Your task to perform on an android device: change the clock display to digital Image 0: 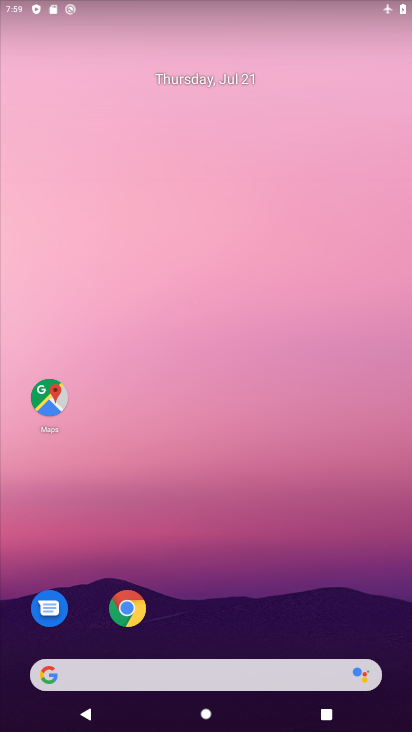
Step 0: press home button
Your task to perform on an android device: change the clock display to digital Image 1: 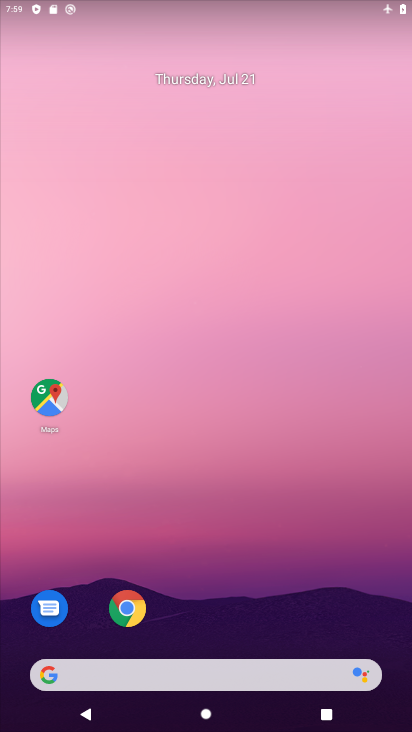
Step 1: drag from (231, 640) to (243, 24)
Your task to perform on an android device: change the clock display to digital Image 2: 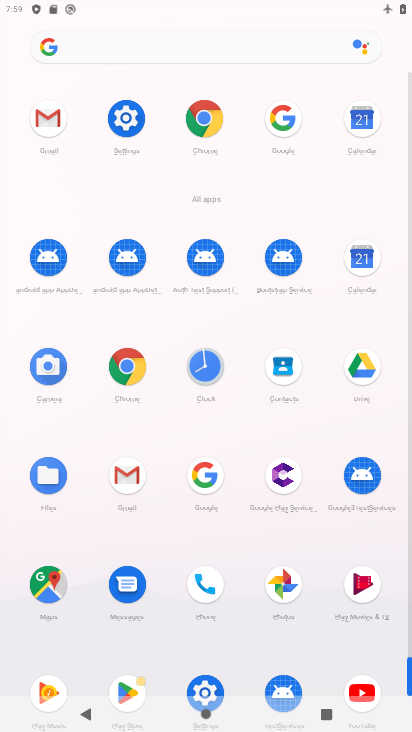
Step 2: click (204, 366)
Your task to perform on an android device: change the clock display to digital Image 3: 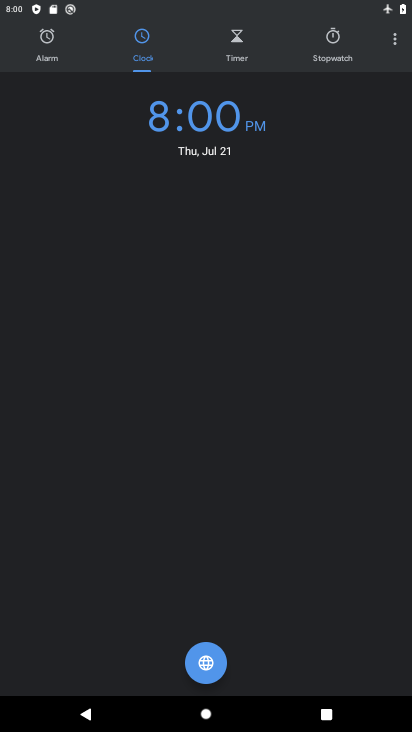
Step 3: click (394, 38)
Your task to perform on an android device: change the clock display to digital Image 4: 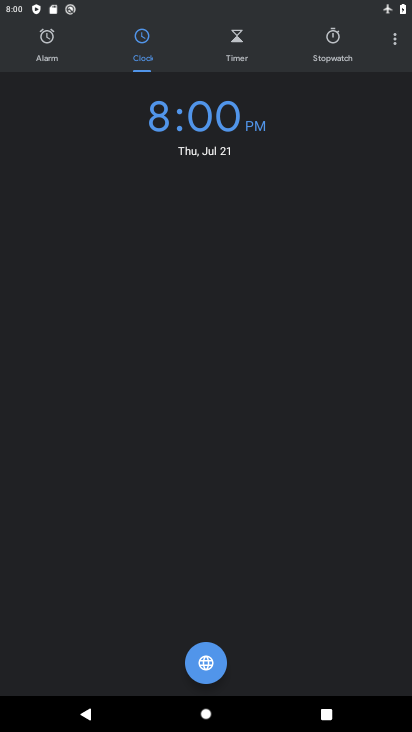
Step 4: click (396, 45)
Your task to perform on an android device: change the clock display to digital Image 5: 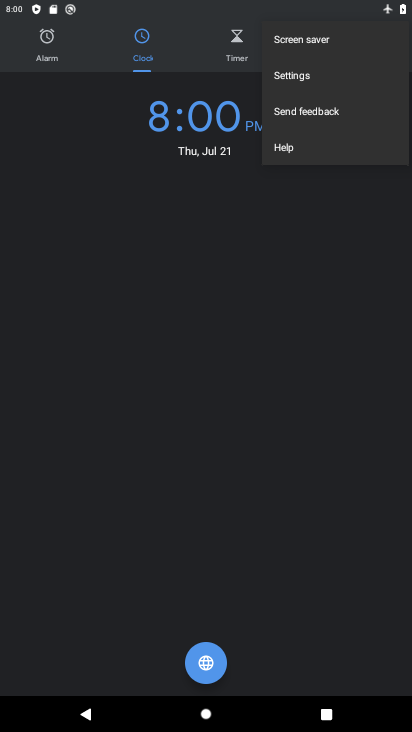
Step 5: click (315, 76)
Your task to perform on an android device: change the clock display to digital Image 6: 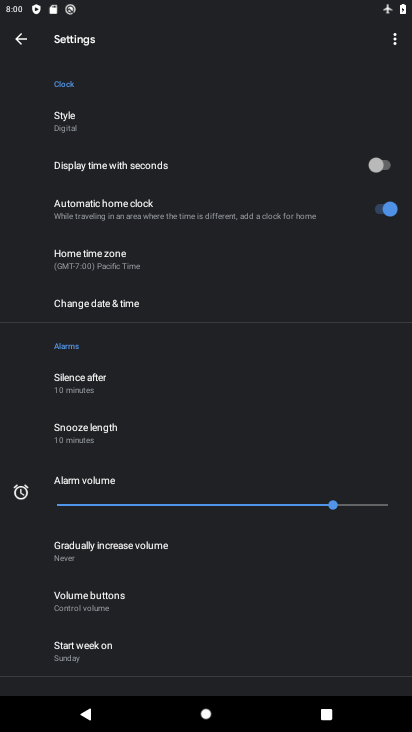
Step 6: click (86, 120)
Your task to perform on an android device: change the clock display to digital Image 7: 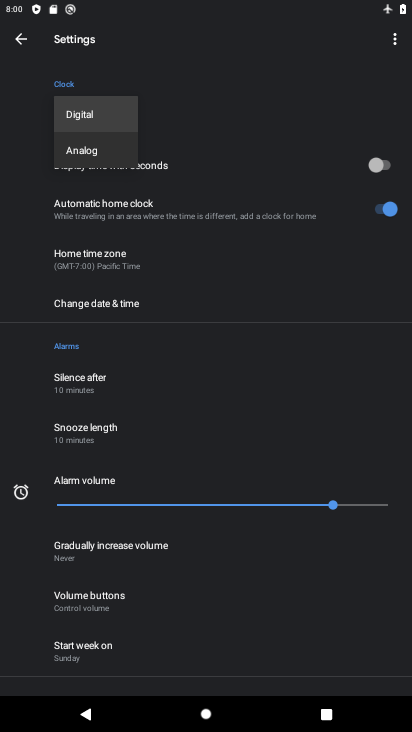
Step 7: click (93, 113)
Your task to perform on an android device: change the clock display to digital Image 8: 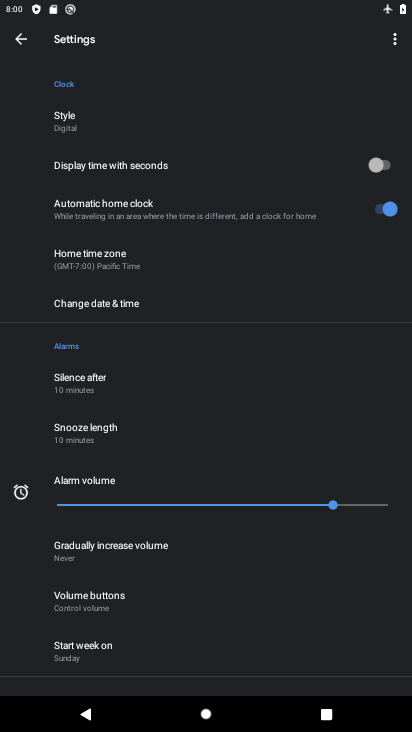
Step 8: task complete